Your task to perform on an android device: Open battery settings Image 0: 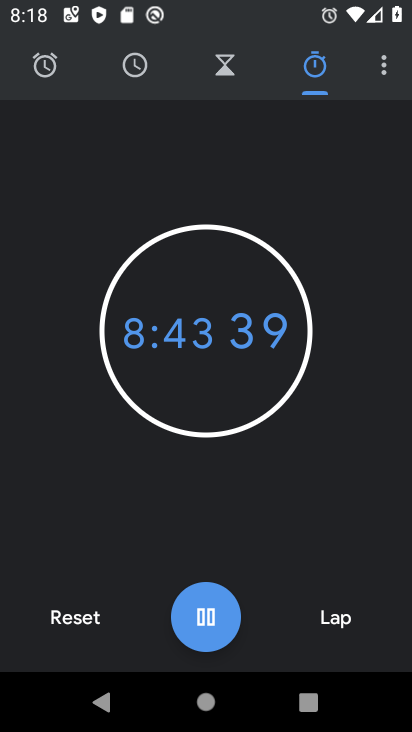
Step 0: press home button
Your task to perform on an android device: Open battery settings Image 1: 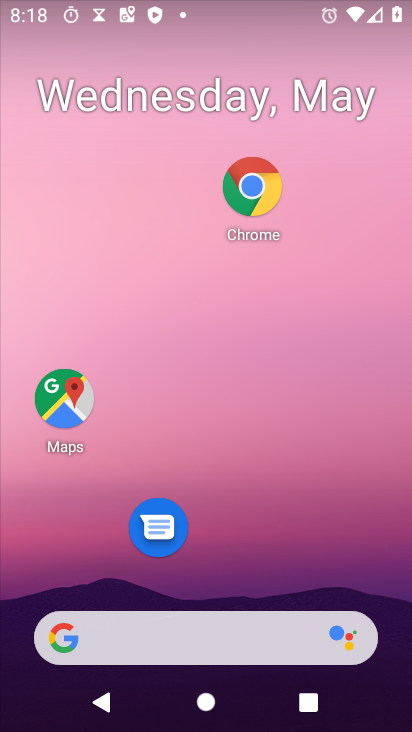
Step 1: drag from (287, 483) to (335, 69)
Your task to perform on an android device: Open battery settings Image 2: 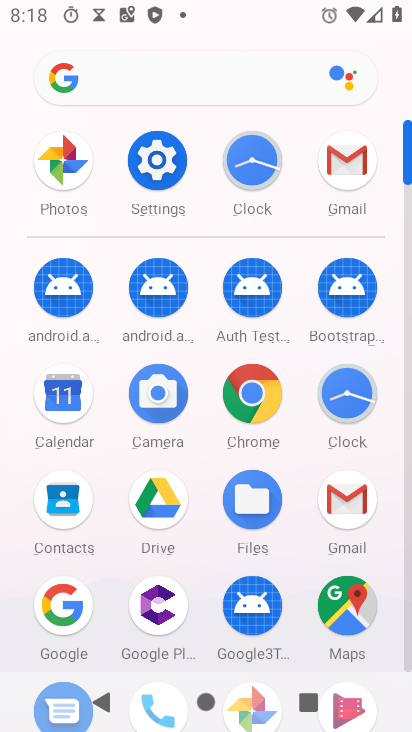
Step 2: click (158, 153)
Your task to perform on an android device: Open battery settings Image 3: 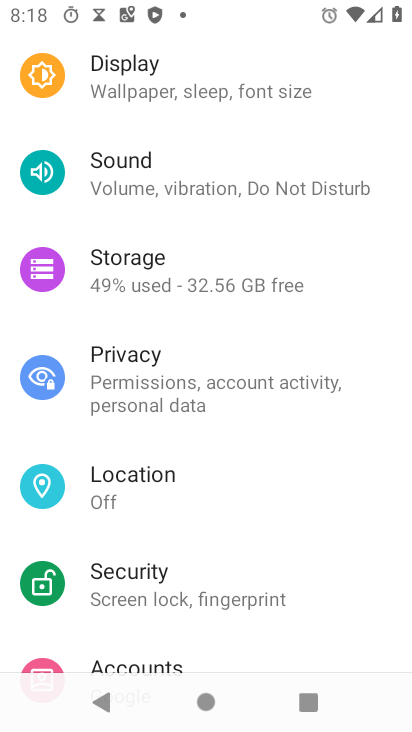
Step 3: drag from (308, 598) to (321, 208)
Your task to perform on an android device: Open battery settings Image 4: 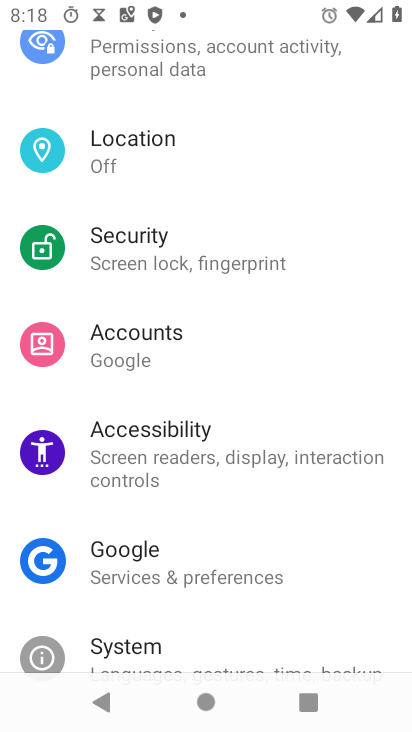
Step 4: drag from (288, 565) to (296, 633)
Your task to perform on an android device: Open battery settings Image 5: 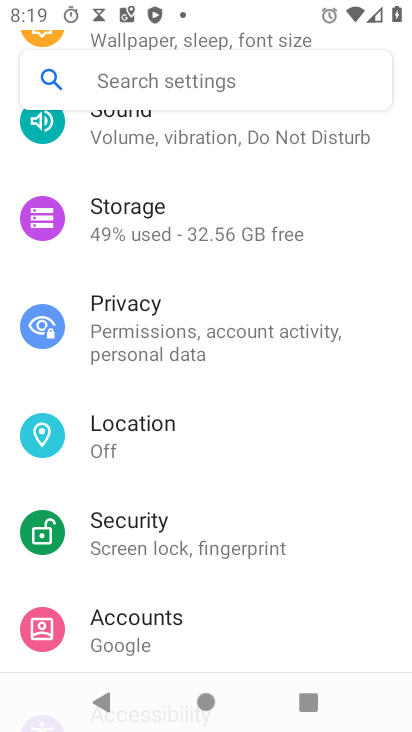
Step 5: drag from (331, 249) to (305, 554)
Your task to perform on an android device: Open battery settings Image 6: 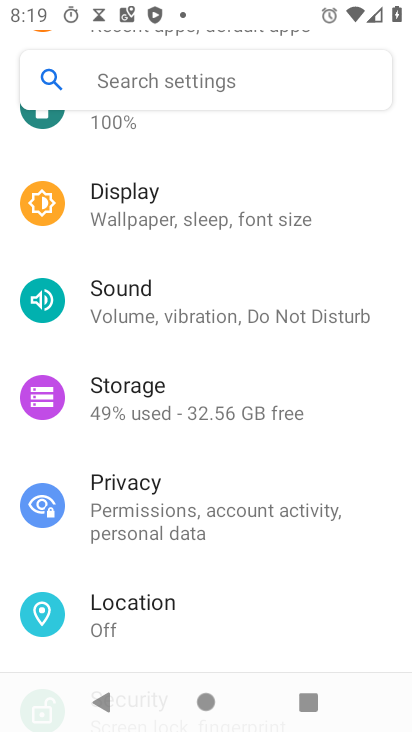
Step 6: drag from (373, 205) to (344, 596)
Your task to perform on an android device: Open battery settings Image 7: 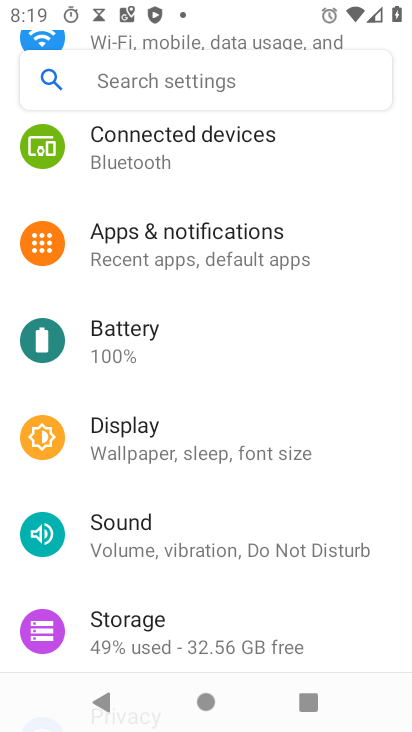
Step 7: click (97, 345)
Your task to perform on an android device: Open battery settings Image 8: 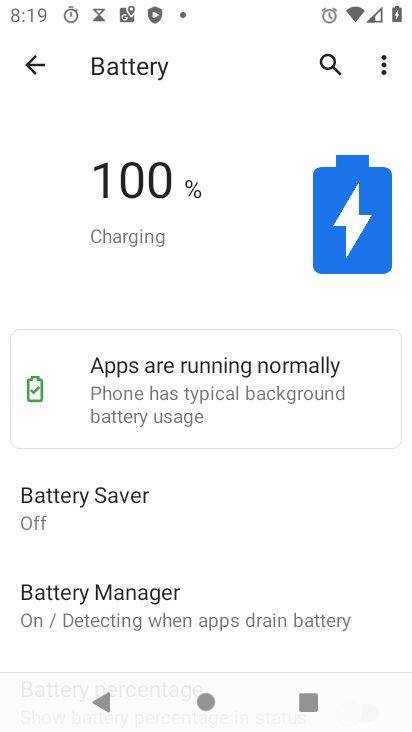
Step 8: task complete